Your task to perform on an android device: open app "Contacts" Image 0: 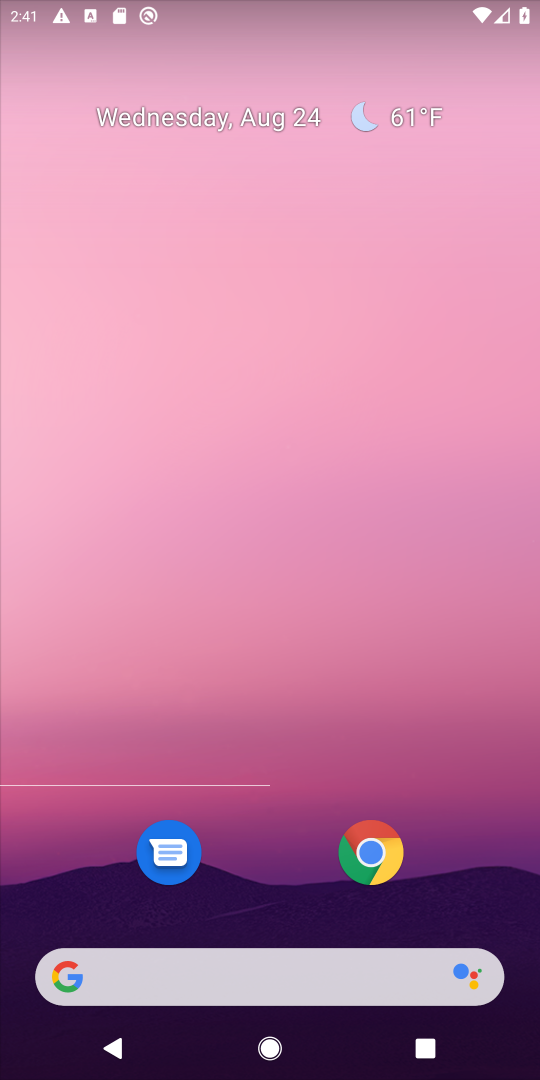
Step 0: press home button
Your task to perform on an android device: open app "Contacts" Image 1: 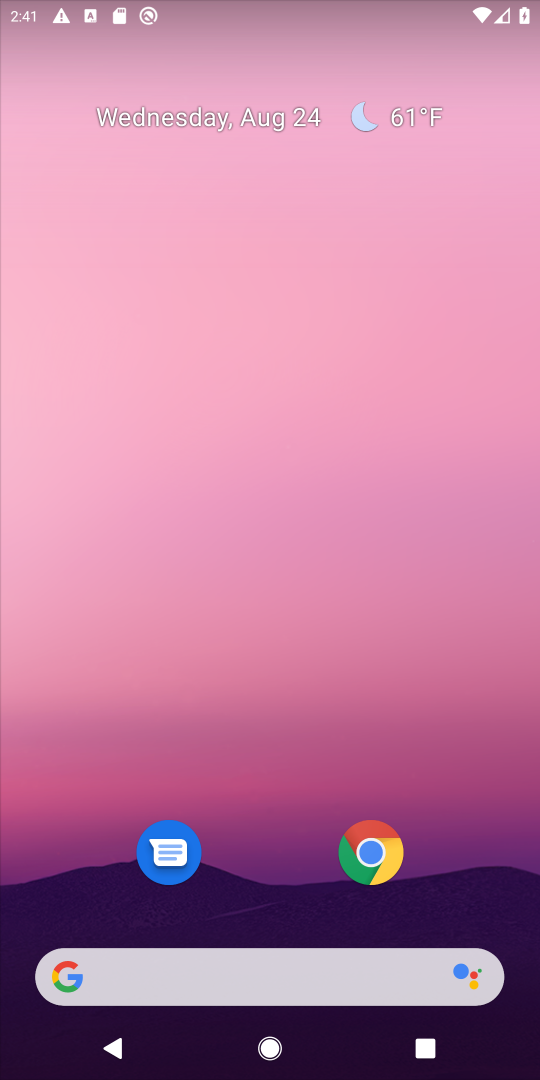
Step 1: drag from (280, 905) to (402, 37)
Your task to perform on an android device: open app "Contacts" Image 2: 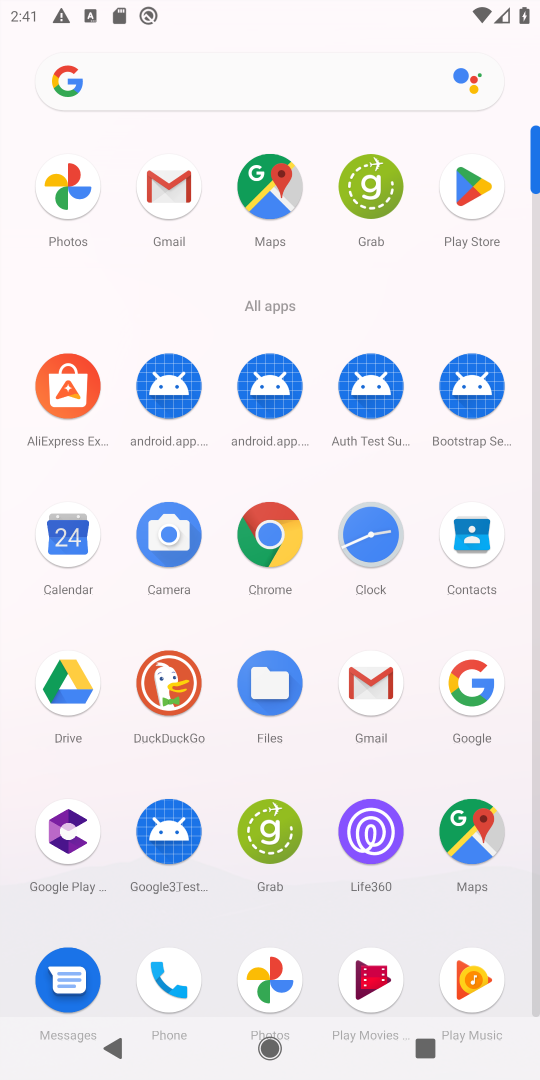
Step 2: click (467, 189)
Your task to perform on an android device: open app "Contacts" Image 3: 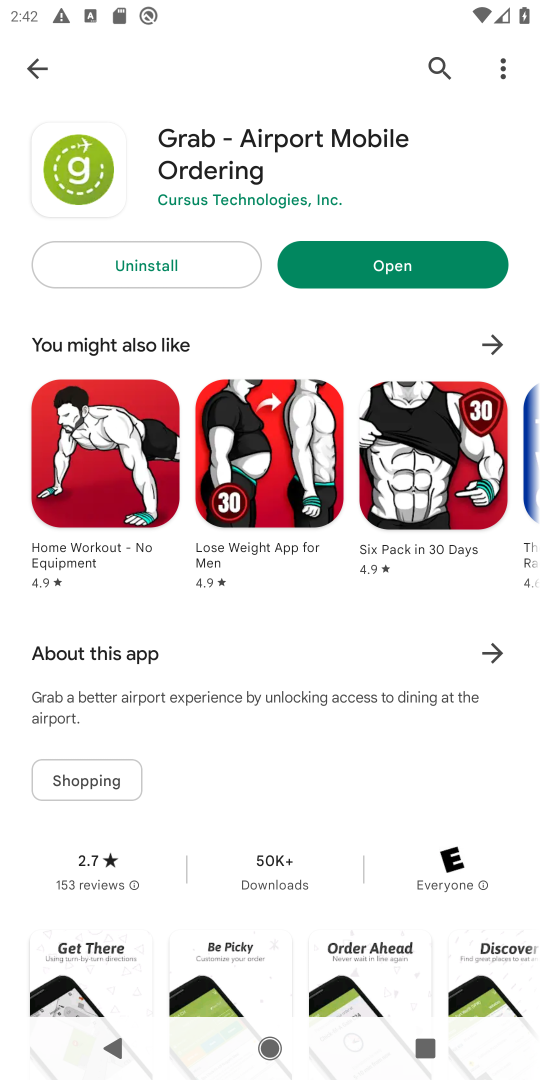
Step 3: click (430, 56)
Your task to perform on an android device: open app "Contacts" Image 4: 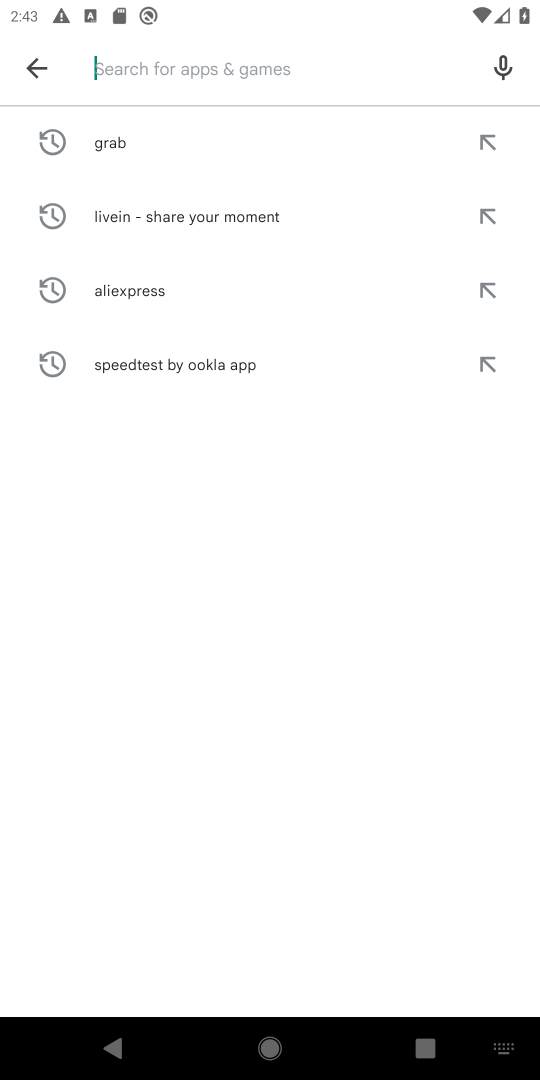
Step 4: type "Contacts"
Your task to perform on an android device: open app "Contacts" Image 5: 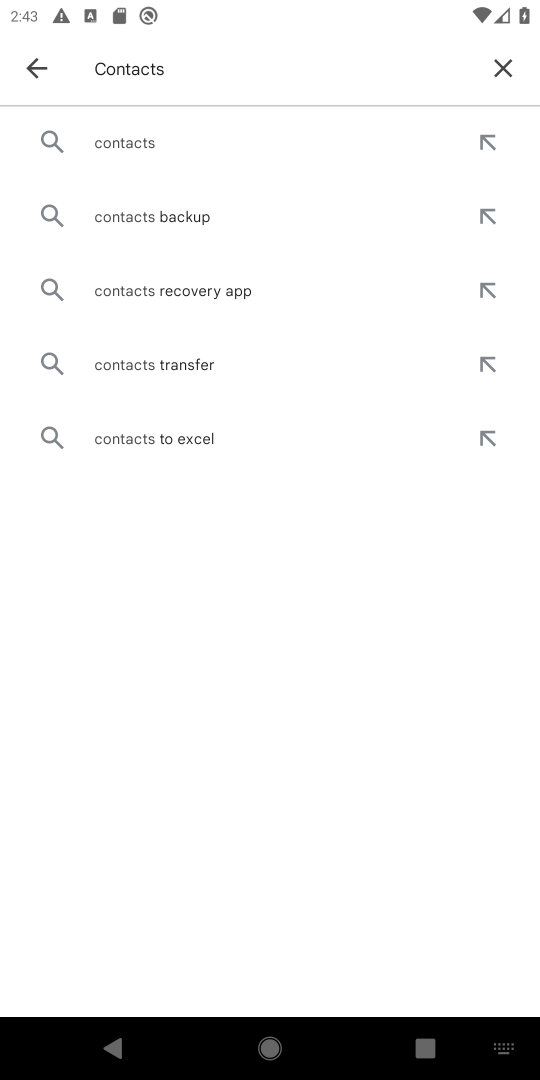
Step 5: click (175, 131)
Your task to perform on an android device: open app "Contacts" Image 6: 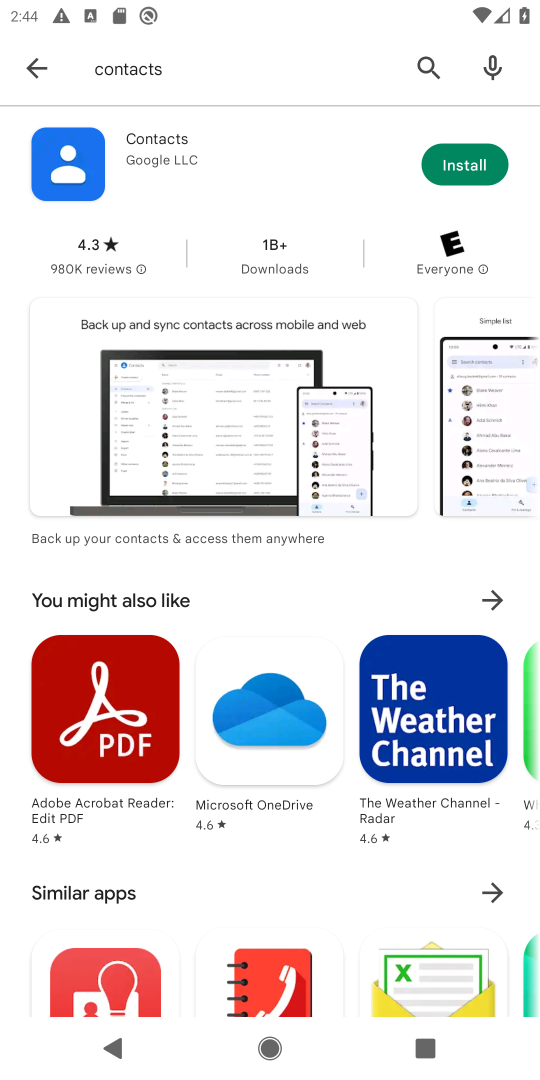
Step 6: task complete